Your task to perform on an android device: Go to accessibility settings Image 0: 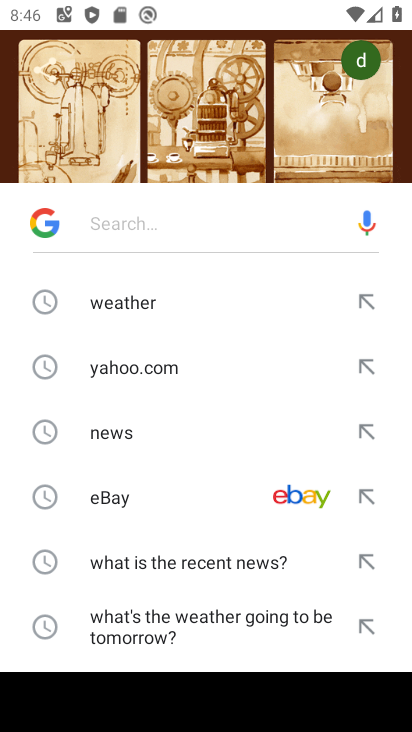
Step 0: press home button
Your task to perform on an android device: Go to accessibility settings Image 1: 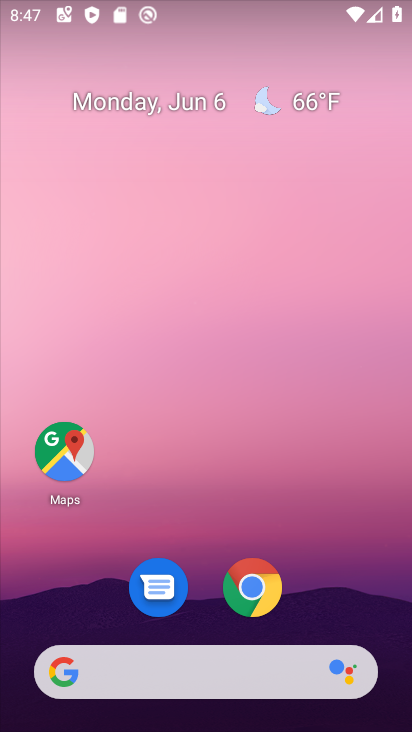
Step 1: drag from (240, 670) to (260, 77)
Your task to perform on an android device: Go to accessibility settings Image 2: 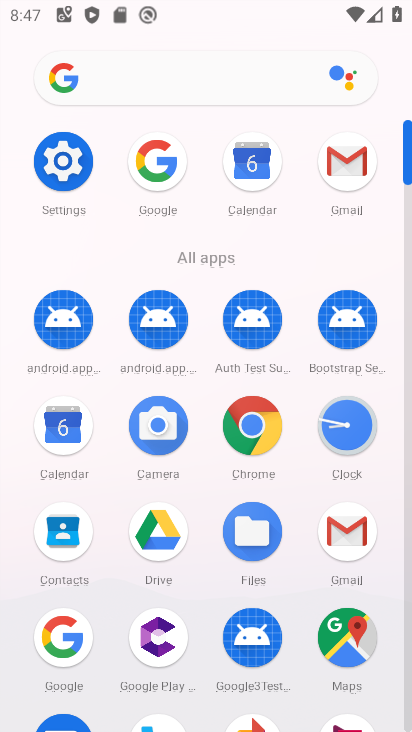
Step 2: click (65, 152)
Your task to perform on an android device: Go to accessibility settings Image 3: 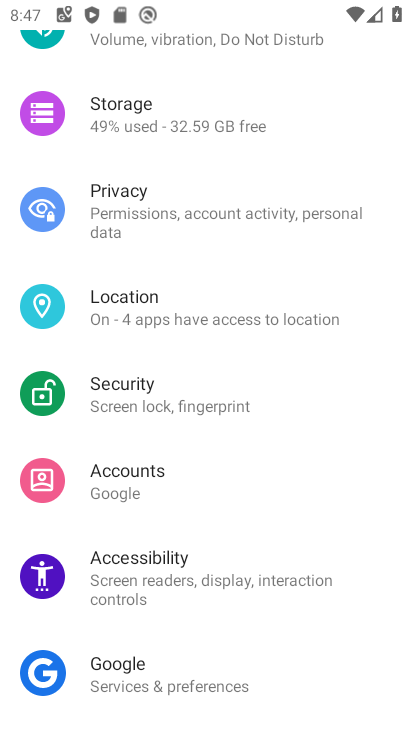
Step 3: drag from (225, 650) to (230, 133)
Your task to perform on an android device: Go to accessibility settings Image 4: 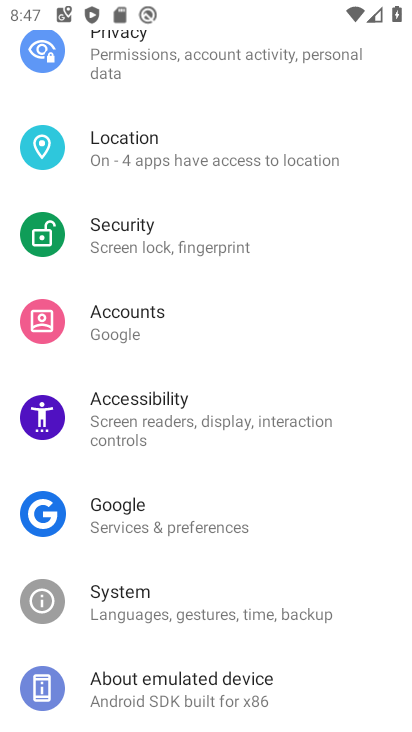
Step 4: click (159, 446)
Your task to perform on an android device: Go to accessibility settings Image 5: 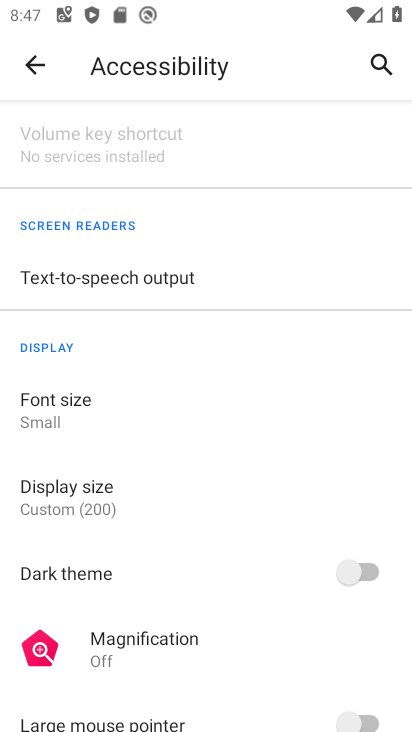
Step 5: task complete